Your task to perform on an android device: see creations saved in the google photos Image 0: 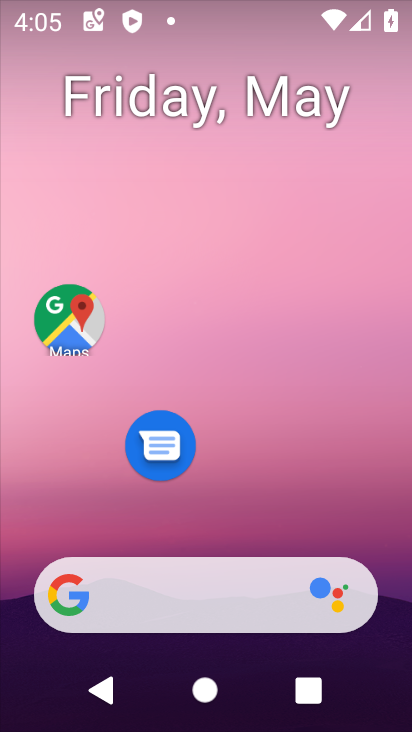
Step 0: drag from (184, 520) to (258, 82)
Your task to perform on an android device: see creations saved in the google photos Image 1: 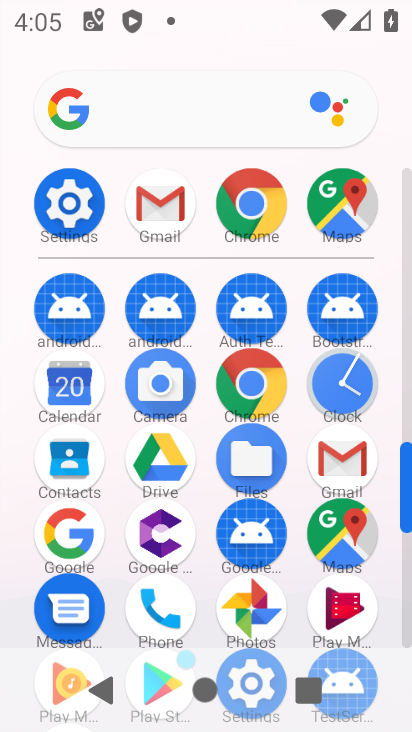
Step 1: click (245, 615)
Your task to perform on an android device: see creations saved in the google photos Image 2: 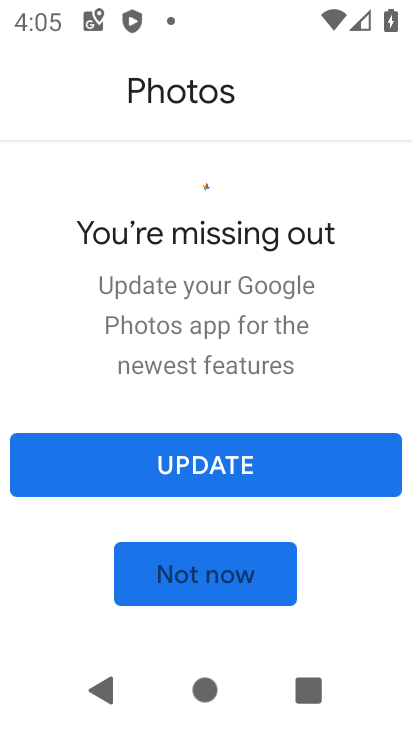
Step 2: click (222, 568)
Your task to perform on an android device: see creations saved in the google photos Image 3: 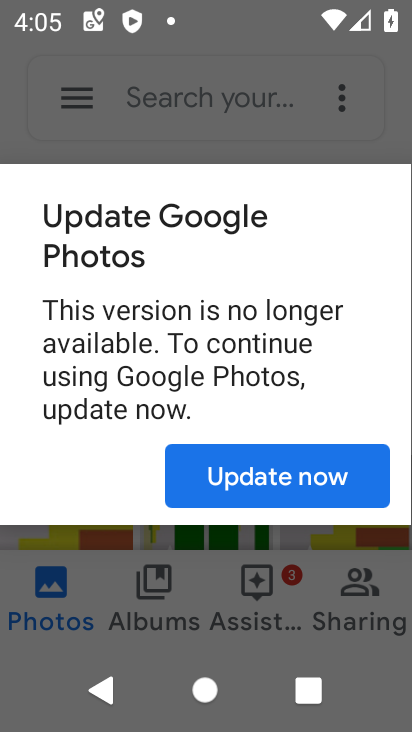
Step 3: click (244, 483)
Your task to perform on an android device: see creations saved in the google photos Image 4: 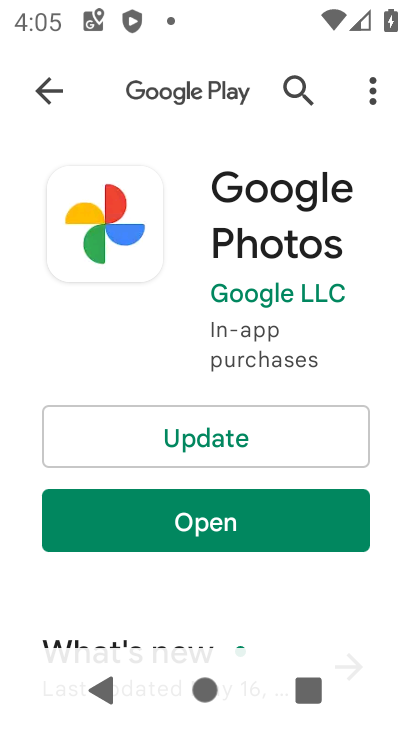
Step 4: click (241, 423)
Your task to perform on an android device: see creations saved in the google photos Image 5: 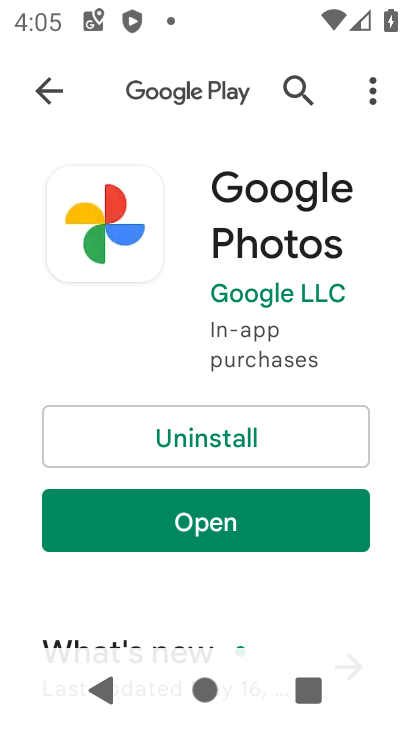
Step 5: click (132, 512)
Your task to perform on an android device: see creations saved in the google photos Image 6: 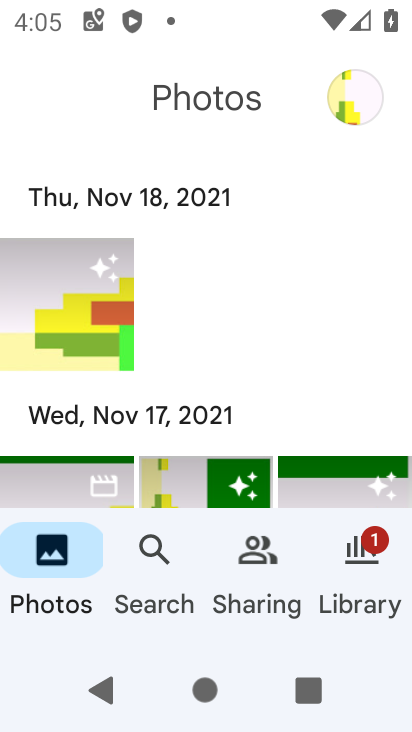
Step 6: click (144, 552)
Your task to perform on an android device: see creations saved in the google photos Image 7: 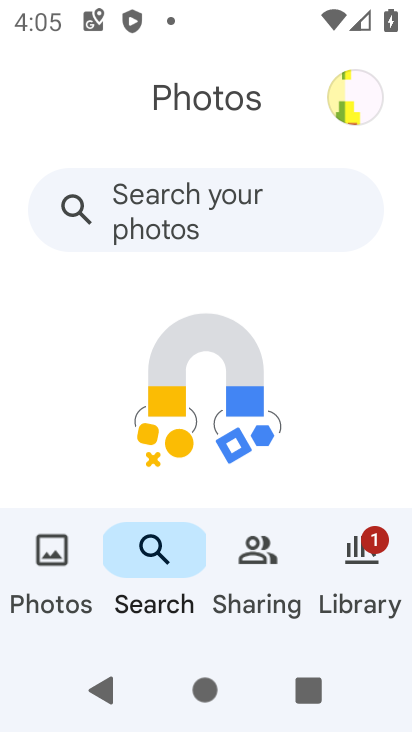
Step 7: click (191, 213)
Your task to perform on an android device: see creations saved in the google photos Image 8: 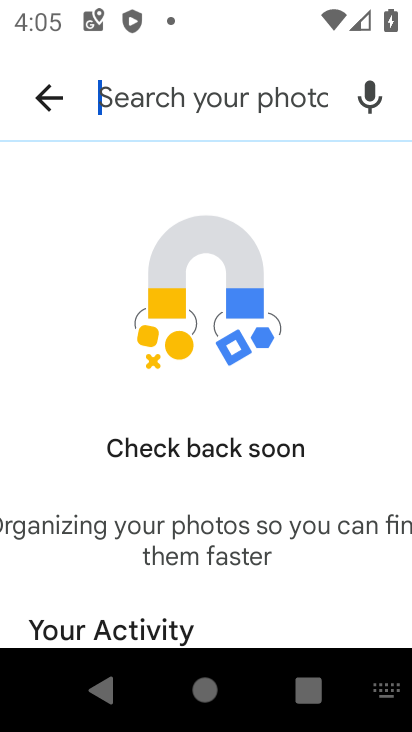
Step 8: type "creations"
Your task to perform on an android device: see creations saved in the google photos Image 9: 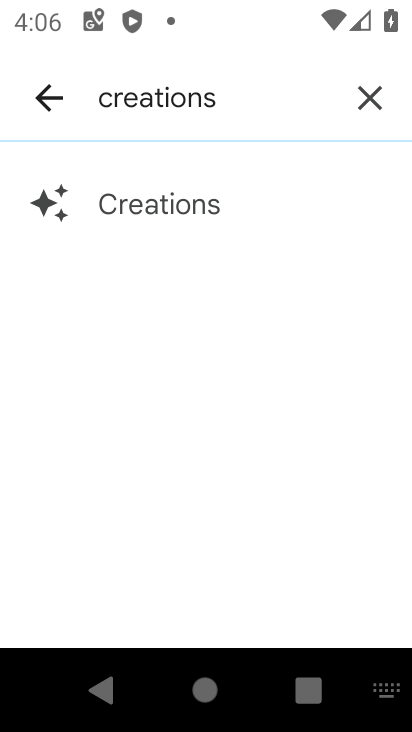
Step 9: click (125, 217)
Your task to perform on an android device: see creations saved in the google photos Image 10: 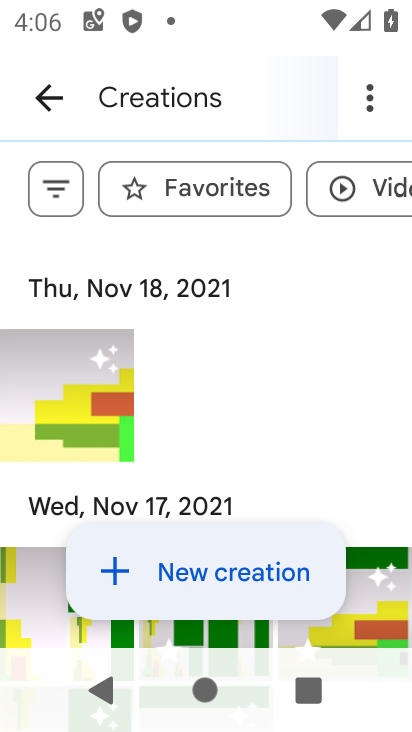
Step 10: task complete